Your task to perform on an android device: toggle javascript in the chrome app Image 0: 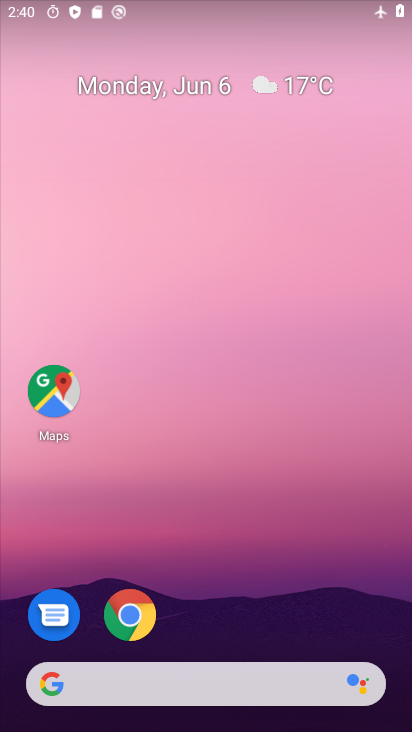
Step 0: click (139, 599)
Your task to perform on an android device: toggle javascript in the chrome app Image 1: 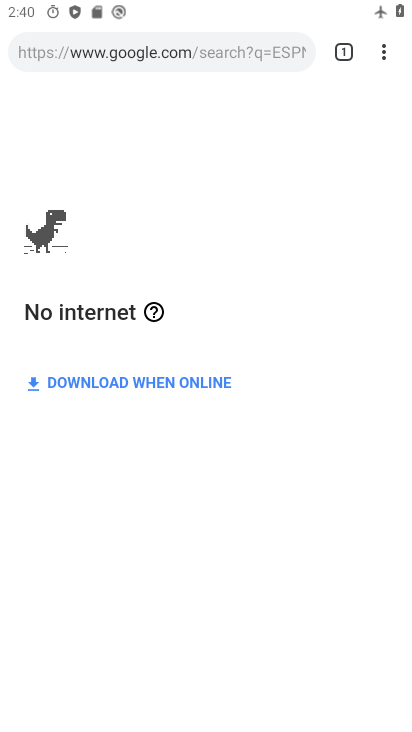
Step 1: click (387, 51)
Your task to perform on an android device: toggle javascript in the chrome app Image 2: 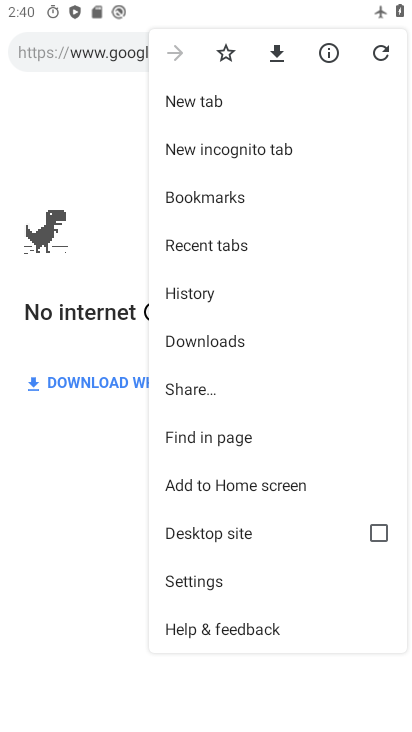
Step 2: click (212, 578)
Your task to perform on an android device: toggle javascript in the chrome app Image 3: 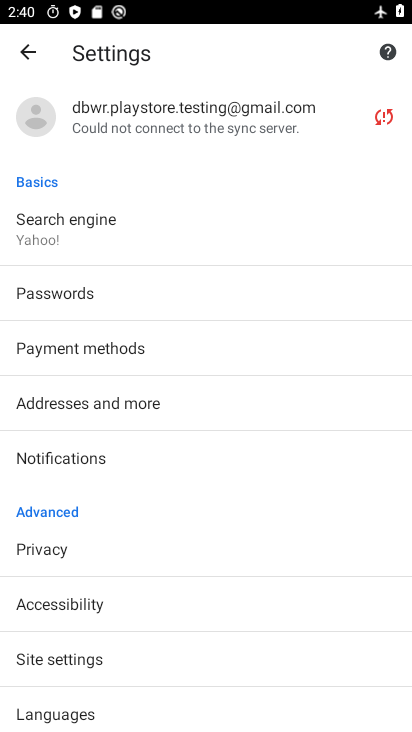
Step 3: click (86, 665)
Your task to perform on an android device: toggle javascript in the chrome app Image 4: 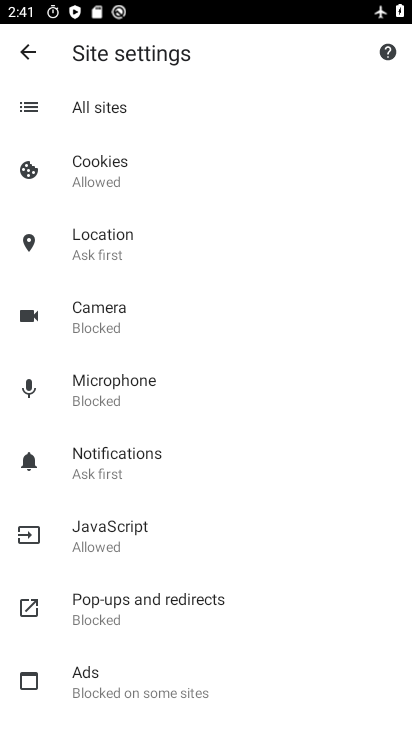
Step 4: click (128, 543)
Your task to perform on an android device: toggle javascript in the chrome app Image 5: 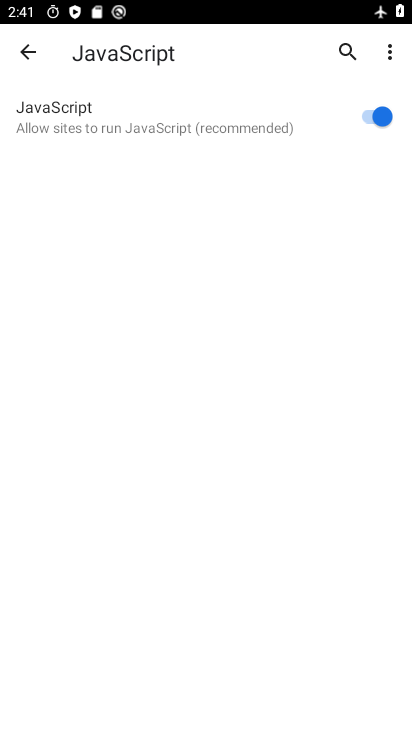
Step 5: click (355, 117)
Your task to perform on an android device: toggle javascript in the chrome app Image 6: 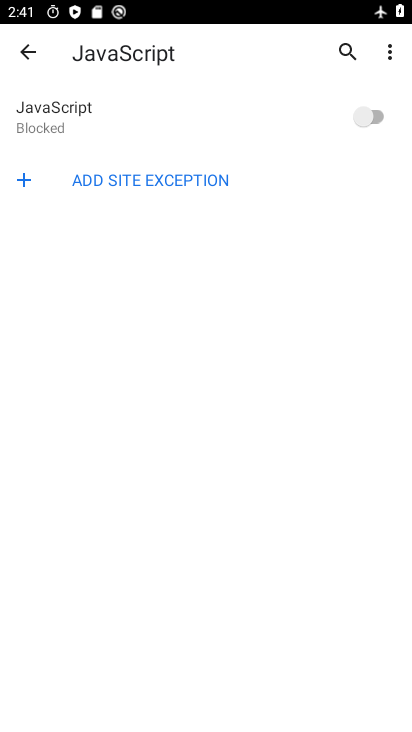
Step 6: task complete